Your task to perform on an android device: Open Google Maps and go to "Timeline" Image 0: 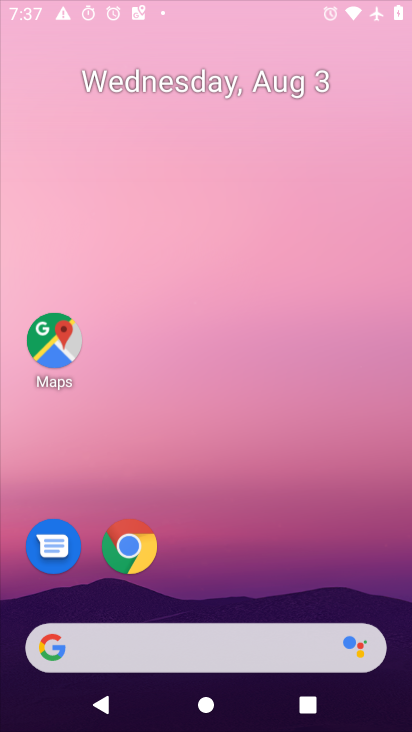
Step 0: press home button
Your task to perform on an android device: Open Google Maps and go to "Timeline" Image 1: 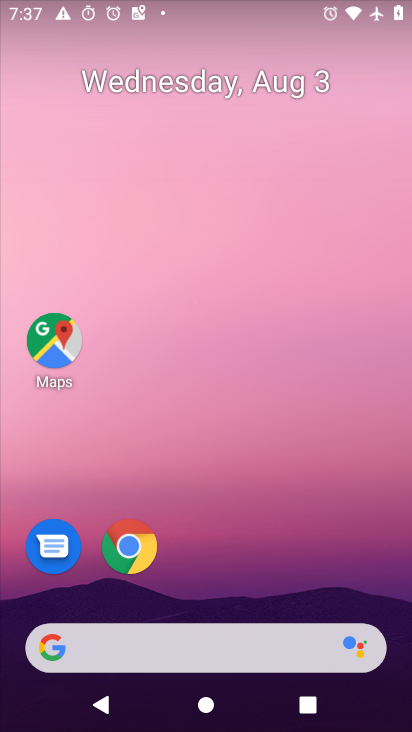
Step 1: click (63, 345)
Your task to perform on an android device: Open Google Maps and go to "Timeline" Image 2: 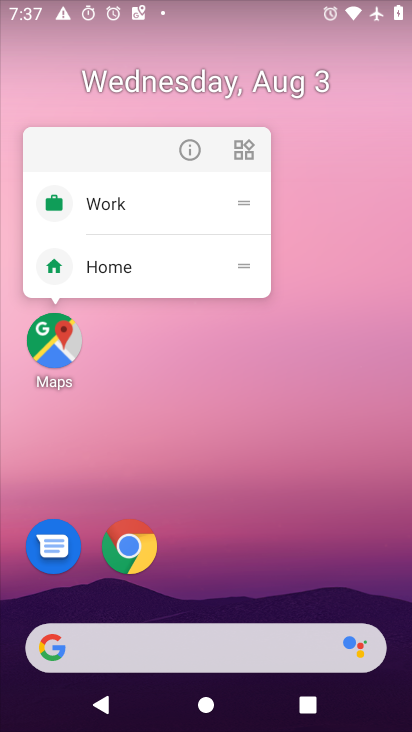
Step 2: click (60, 347)
Your task to perform on an android device: Open Google Maps and go to "Timeline" Image 3: 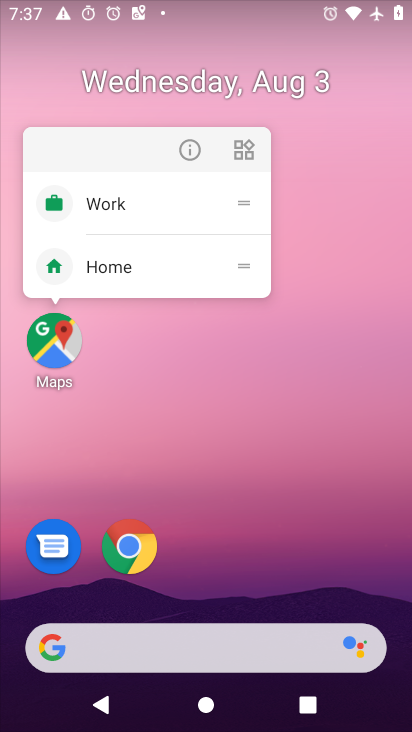
Step 3: click (66, 348)
Your task to perform on an android device: Open Google Maps and go to "Timeline" Image 4: 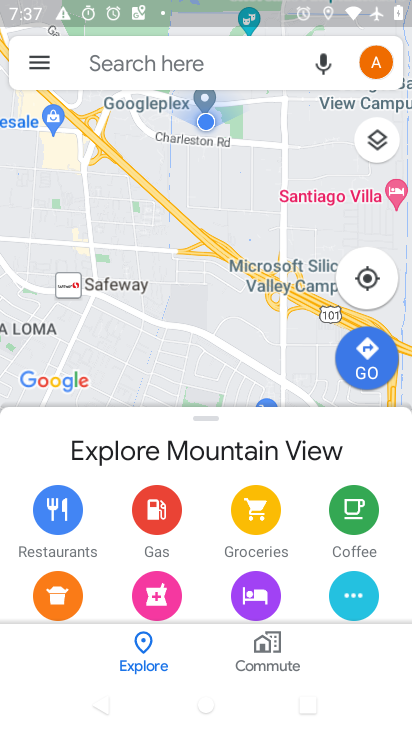
Step 4: click (46, 59)
Your task to perform on an android device: Open Google Maps and go to "Timeline" Image 5: 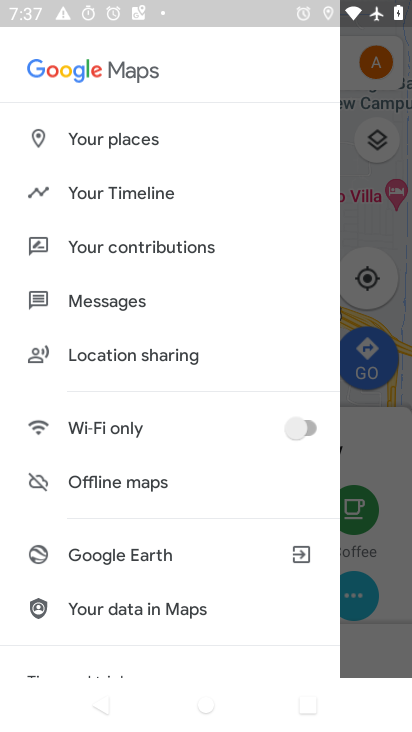
Step 5: click (117, 200)
Your task to perform on an android device: Open Google Maps and go to "Timeline" Image 6: 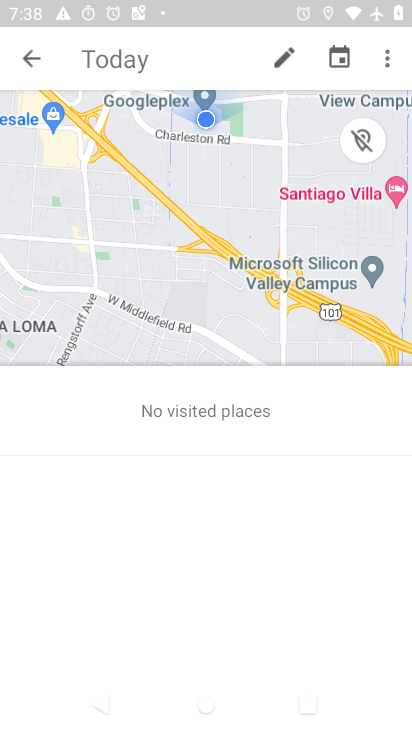
Step 6: click (32, 64)
Your task to perform on an android device: Open Google Maps and go to "Timeline" Image 7: 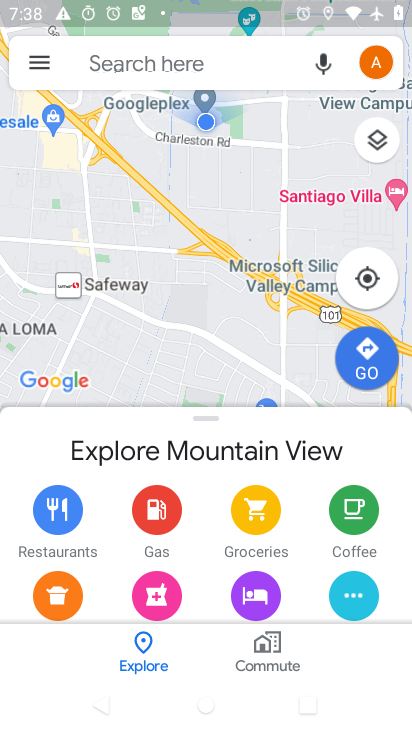
Step 7: click (34, 58)
Your task to perform on an android device: Open Google Maps and go to "Timeline" Image 8: 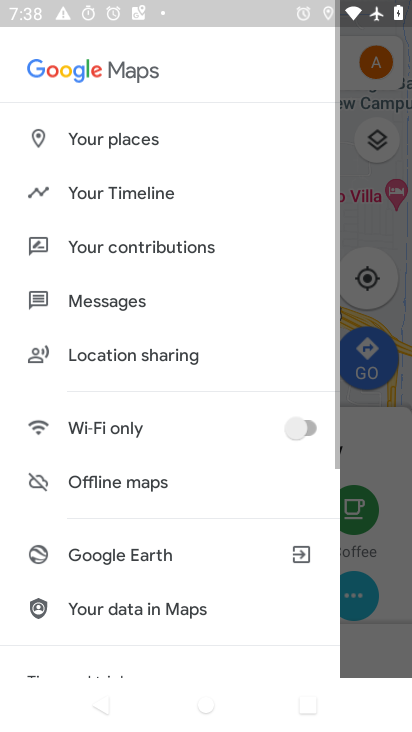
Step 8: click (120, 201)
Your task to perform on an android device: Open Google Maps and go to "Timeline" Image 9: 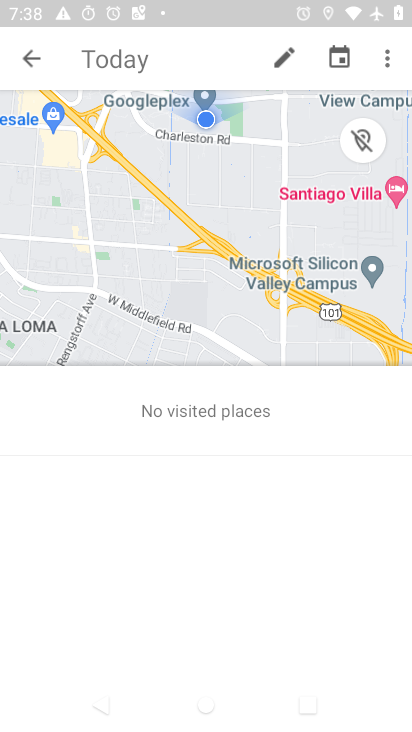
Step 9: task complete